Your task to perform on an android device: open device folders in google photos Image 0: 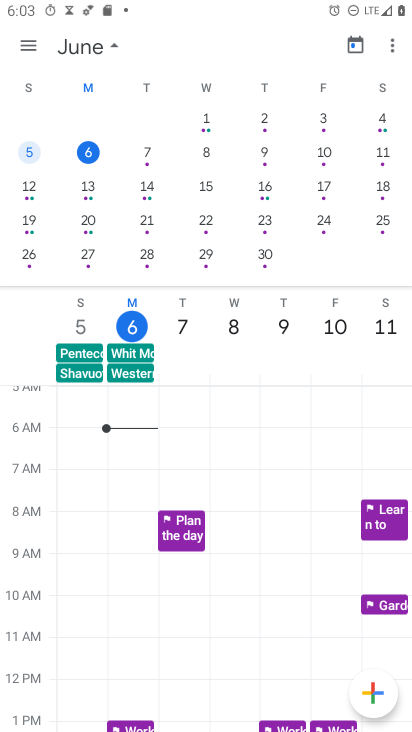
Step 0: press home button
Your task to perform on an android device: open device folders in google photos Image 1: 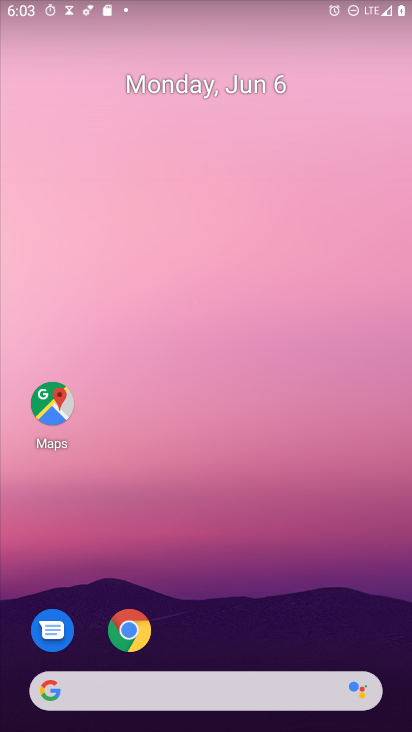
Step 1: drag from (250, 537) to (296, 17)
Your task to perform on an android device: open device folders in google photos Image 2: 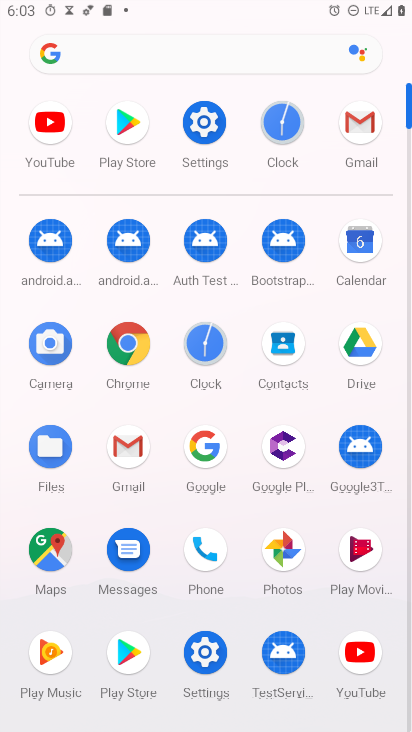
Step 2: click (280, 551)
Your task to perform on an android device: open device folders in google photos Image 3: 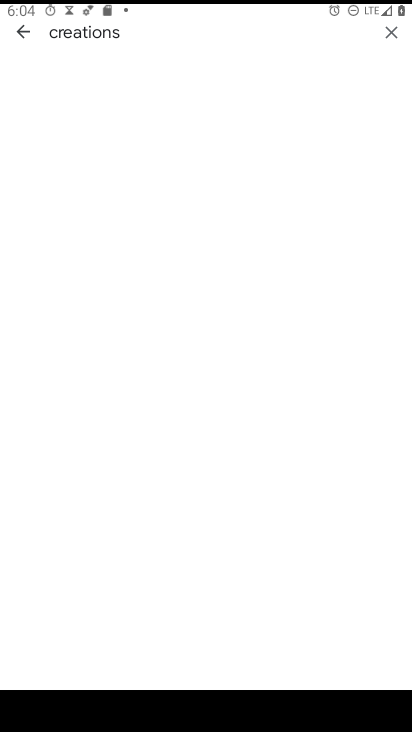
Step 3: click (394, 31)
Your task to perform on an android device: open device folders in google photos Image 4: 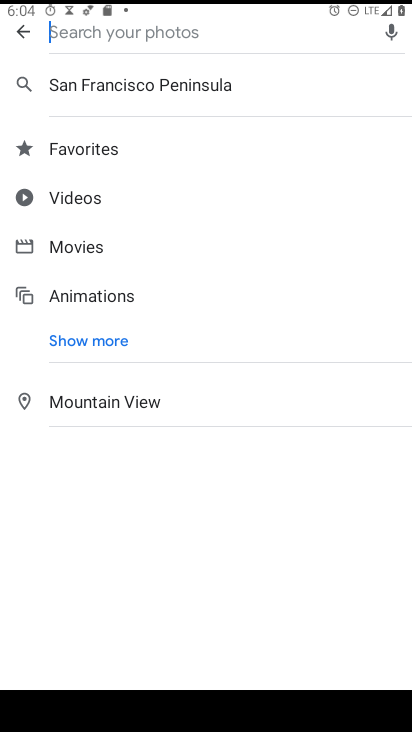
Step 4: click (26, 32)
Your task to perform on an android device: open device folders in google photos Image 5: 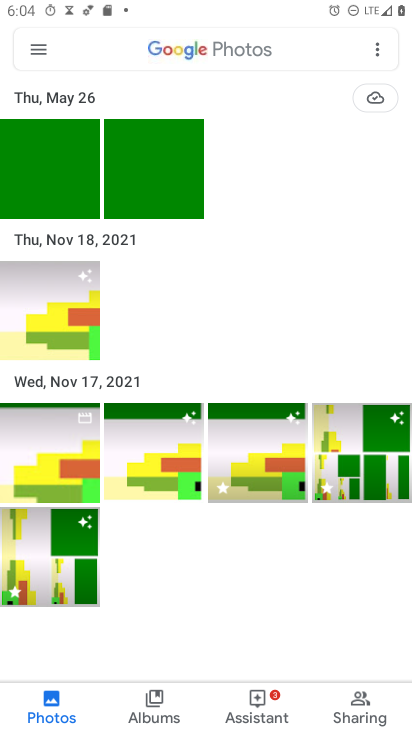
Step 5: click (39, 46)
Your task to perform on an android device: open device folders in google photos Image 6: 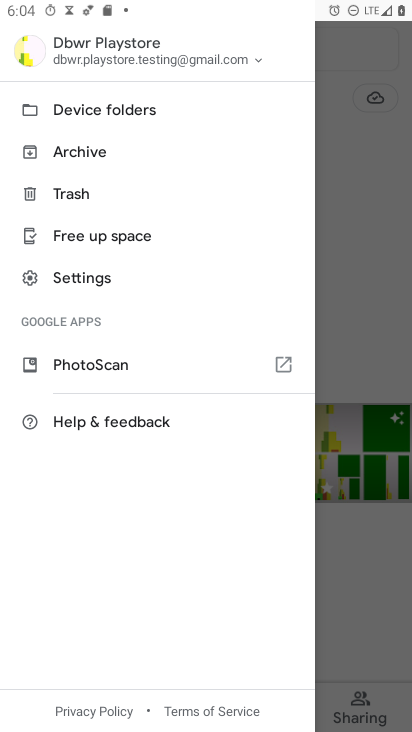
Step 6: click (122, 117)
Your task to perform on an android device: open device folders in google photos Image 7: 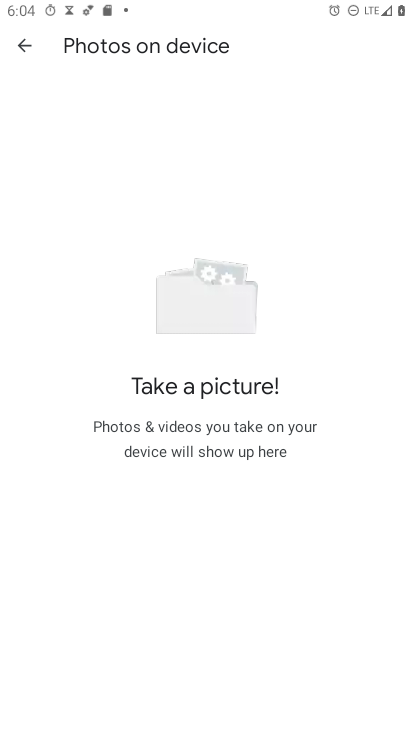
Step 7: task complete